Your task to perform on an android device: turn on sleep mode Image 0: 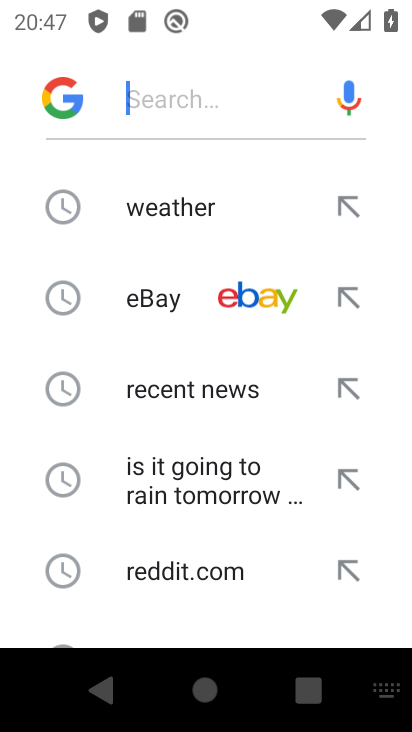
Step 0: press home button
Your task to perform on an android device: turn on sleep mode Image 1: 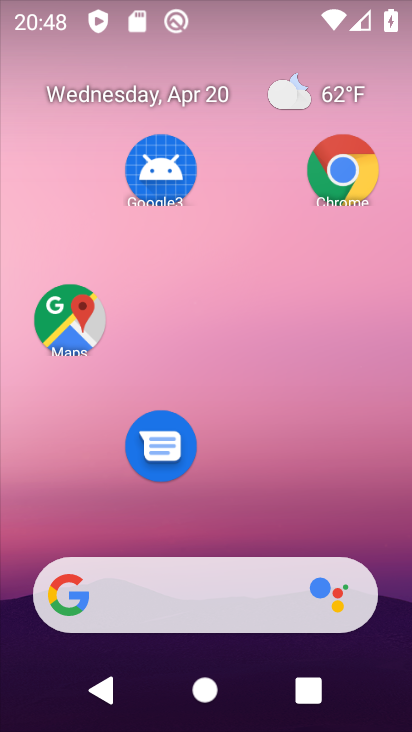
Step 1: drag from (207, 419) to (209, 77)
Your task to perform on an android device: turn on sleep mode Image 2: 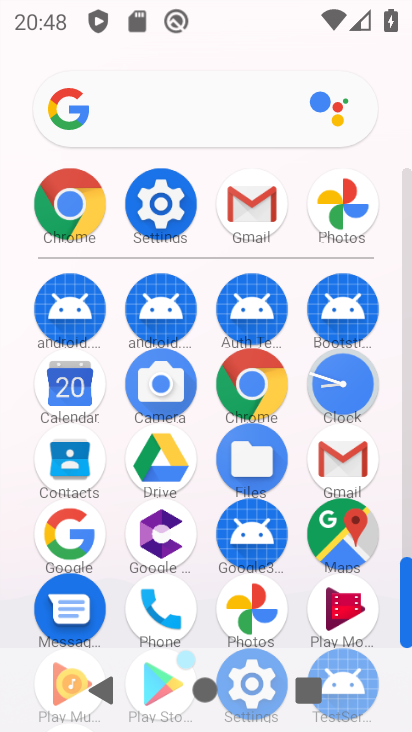
Step 2: click (168, 204)
Your task to perform on an android device: turn on sleep mode Image 3: 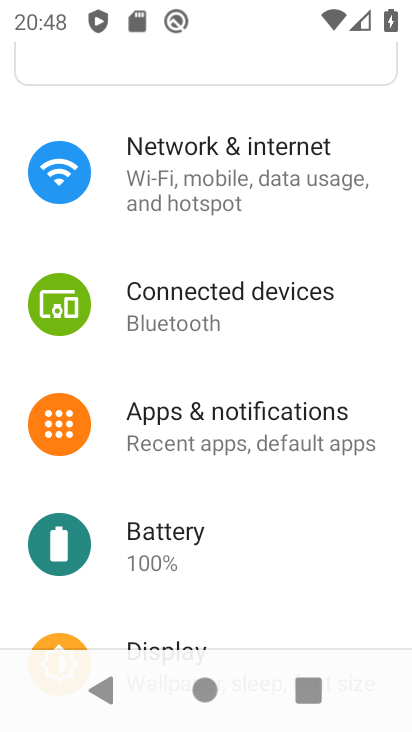
Step 3: click (218, 161)
Your task to perform on an android device: turn on sleep mode Image 4: 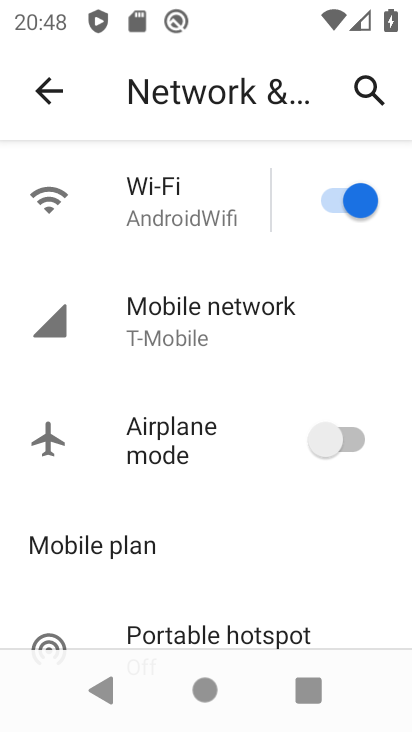
Step 4: click (35, 113)
Your task to perform on an android device: turn on sleep mode Image 5: 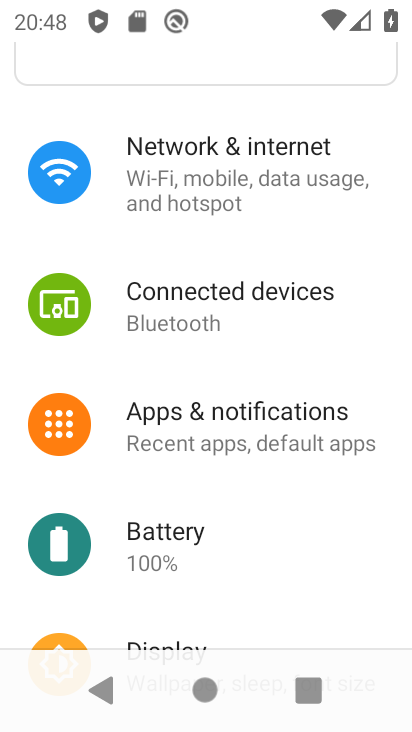
Step 5: task complete